Your task to perform on an android device: See recent photos Image 0: 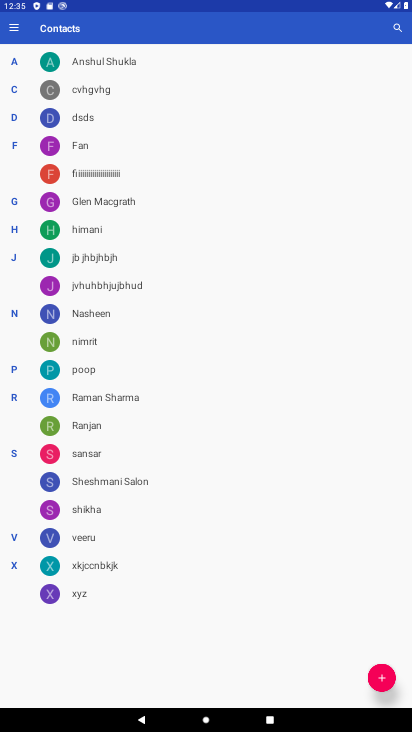
Step 0: press back button
Your task to perform on an android device: See recent photos Image 1: 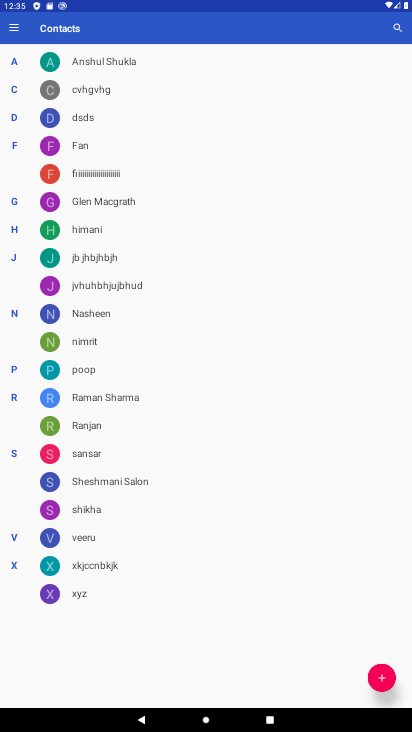
Step 1: press back button
Your task to perform on an android device: See recent photos Image 2: 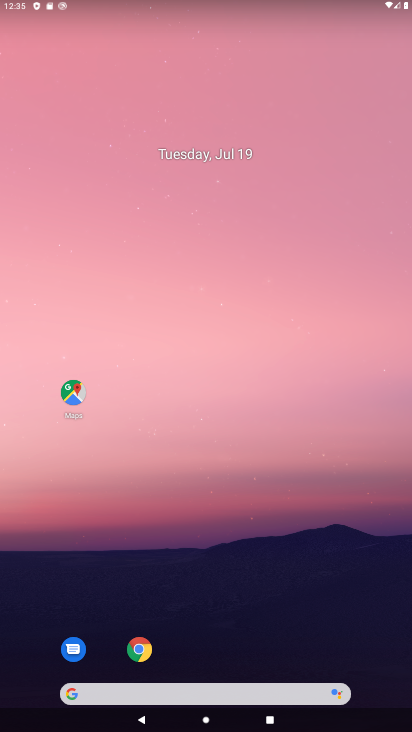
Step 2: drag from (242, 688) to (241, 136)
Your task to perform on an android device: See recent photos Image 3: 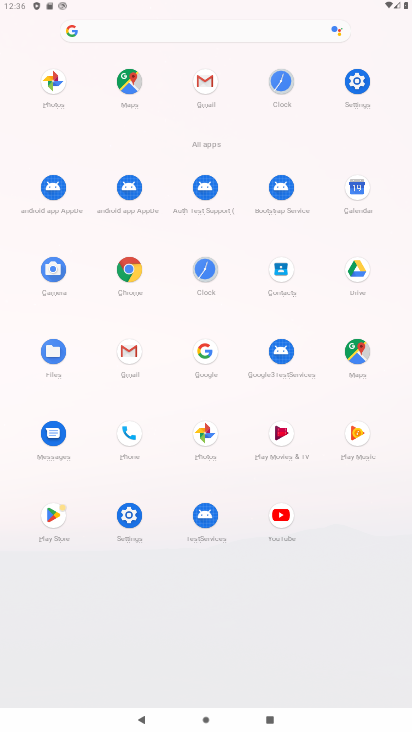
Step 3: click (197, 435)
Your task to perform on an android device: See recent photos Image 4: 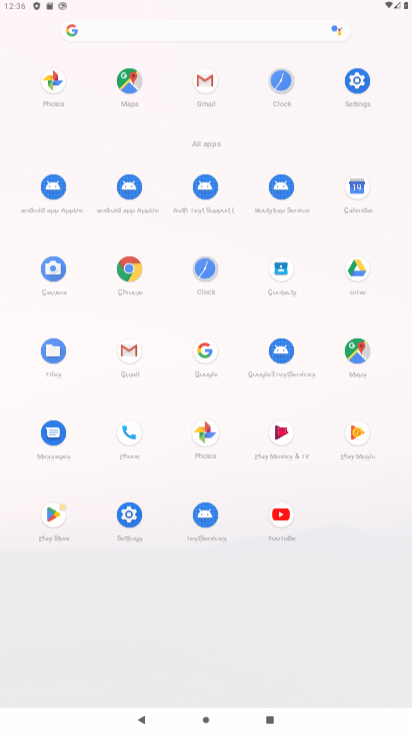
Step 4: click (197, 435)
Your task to perform on an android device: See recent photos Image 5: 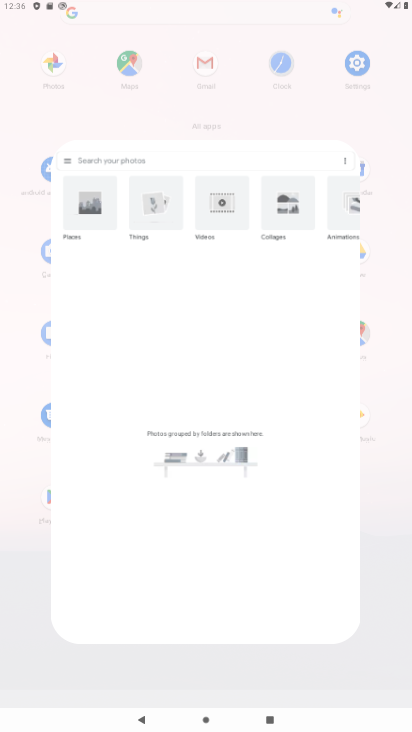
Step 5: click (197, 435)
Your task to perform on an android device: See recent photos Image 6: 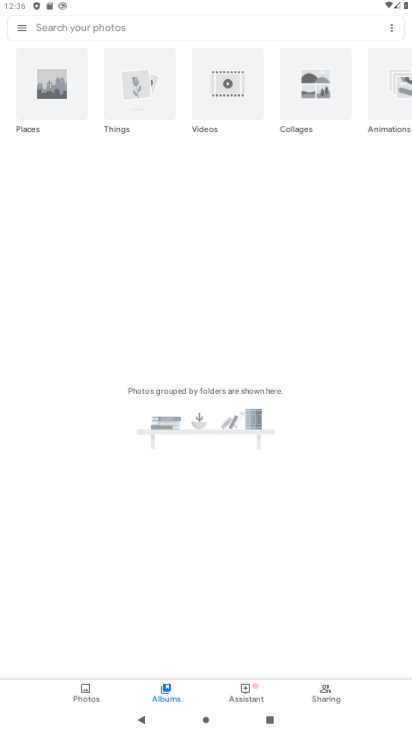
Step 6: click (198, 436)
Your task to perform on an android device: See recent photos Image 7: 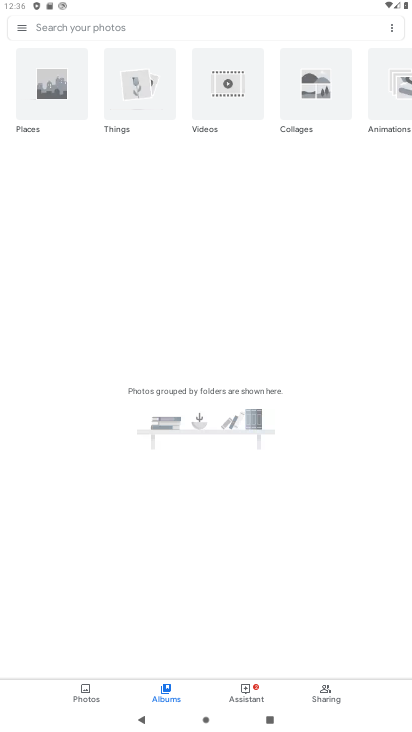
Step 7: click (199, 436)
Your task to perform on an android device: See recent photos Image 8: 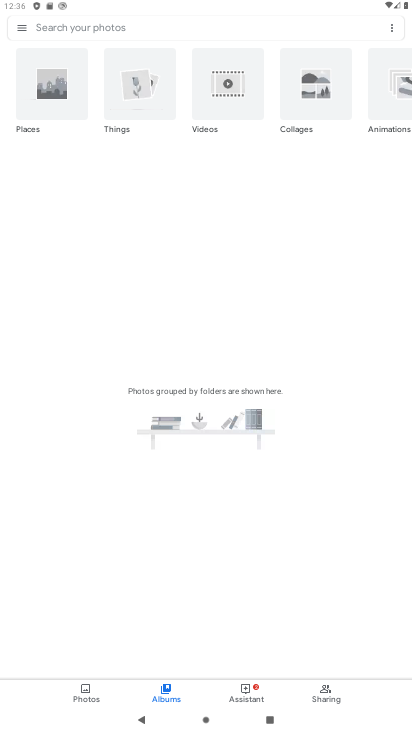
Step 8: click (200, 435)
Your task to perform on an android device: See recent photos Image 9: 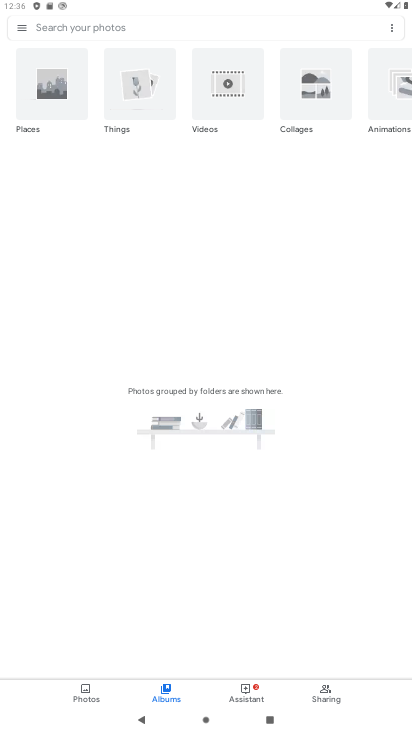
Step 9: click (200, 435)
Your task to perform on an android device: See recent photos Image 10: 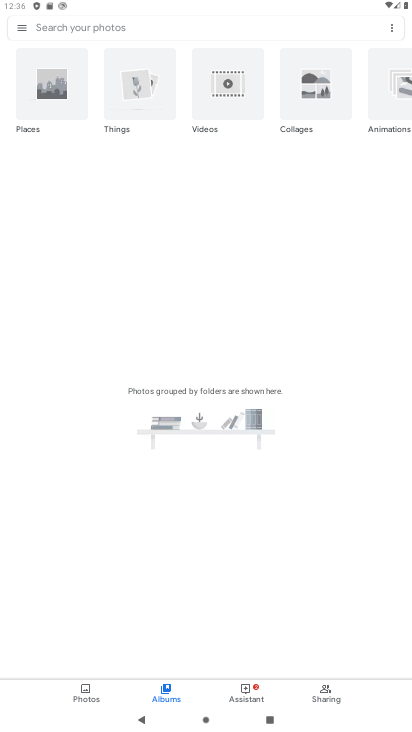
Step 10: click (82, 688)
Your task to perform on an android device: See recent photos Image 11: 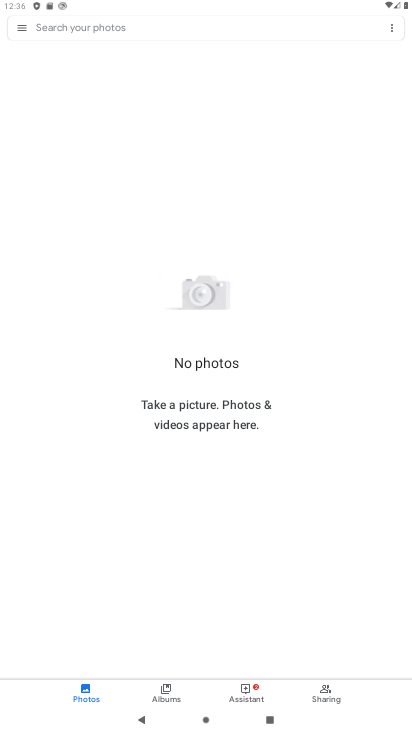
Step 11: click (79, 691)
Your task to perform on an android device: See recent photos Image 12: 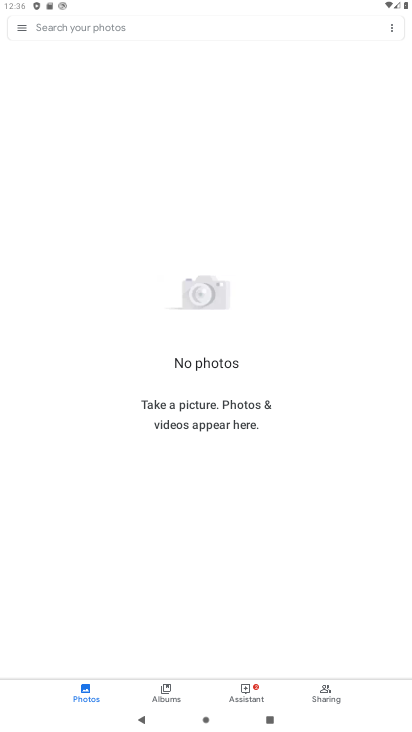
Step 12: click (79, 692)
Your task to perform on an android device: See recent photos Image 13: 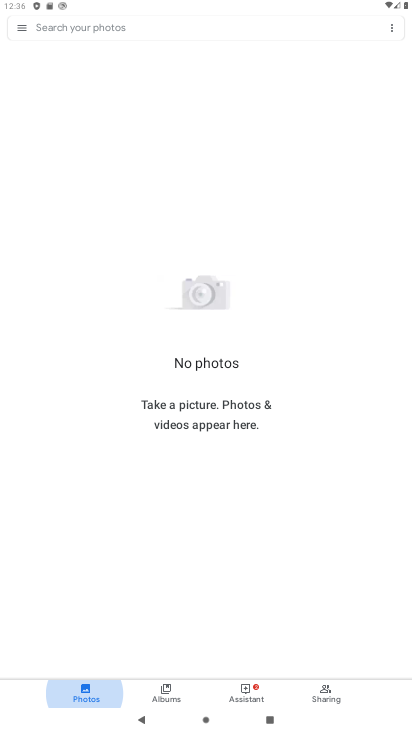
Step 13: click (80, 694)
Your task to perform on an android device: See recent photos Image 14: 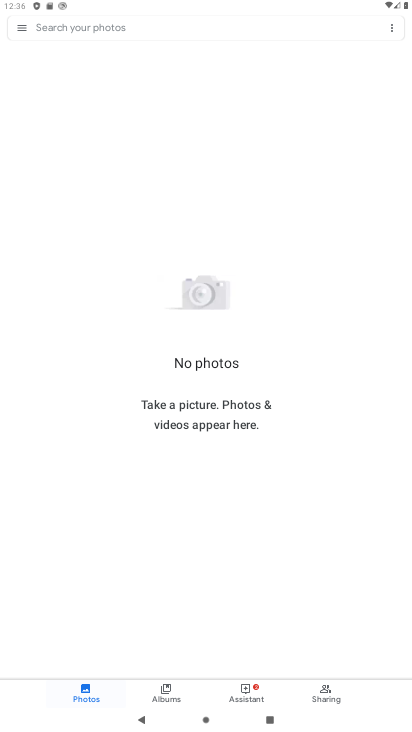
Step 14: click (80, 694)
Your task to perform on an android device: See recent photos Image 15: 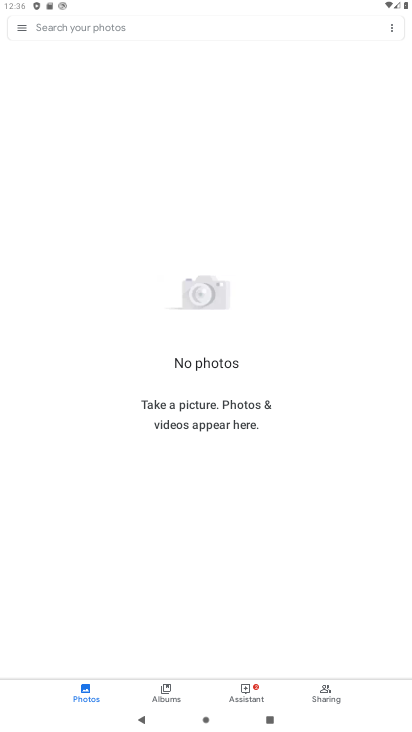
Step 15: task complete